Your task to perform on an android device: View the shopping cart on ebay. Add "macbook" to the cart on ebay Image 0: 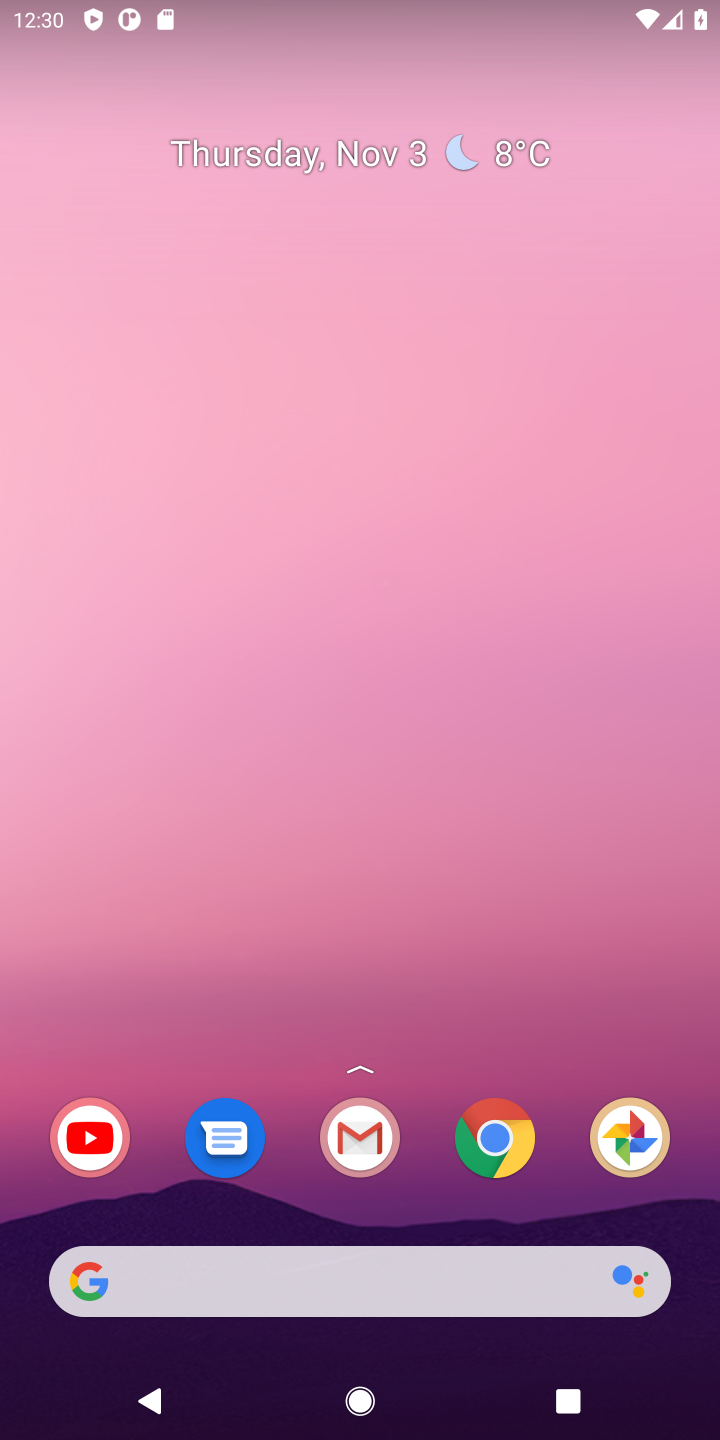
Step 0: click (504, 1153)
Your task to perform on an android device: View the shopping cart on ebay. Add "macbook" to the cart on ebay Image 1: 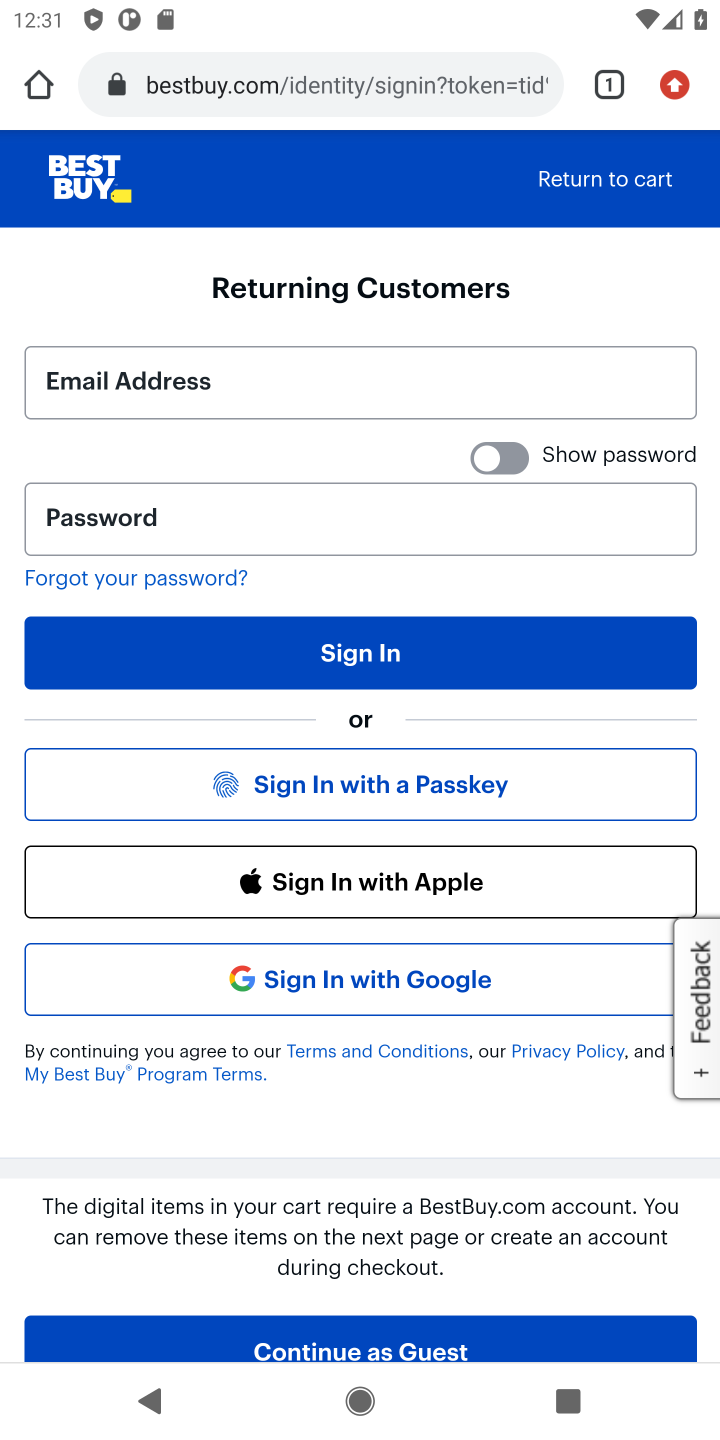
Step 1: click (206, 82)
Your task to perform on an android device: View the shopping cart on ebay. Add "macbook" to the cart on ebay Image 2: 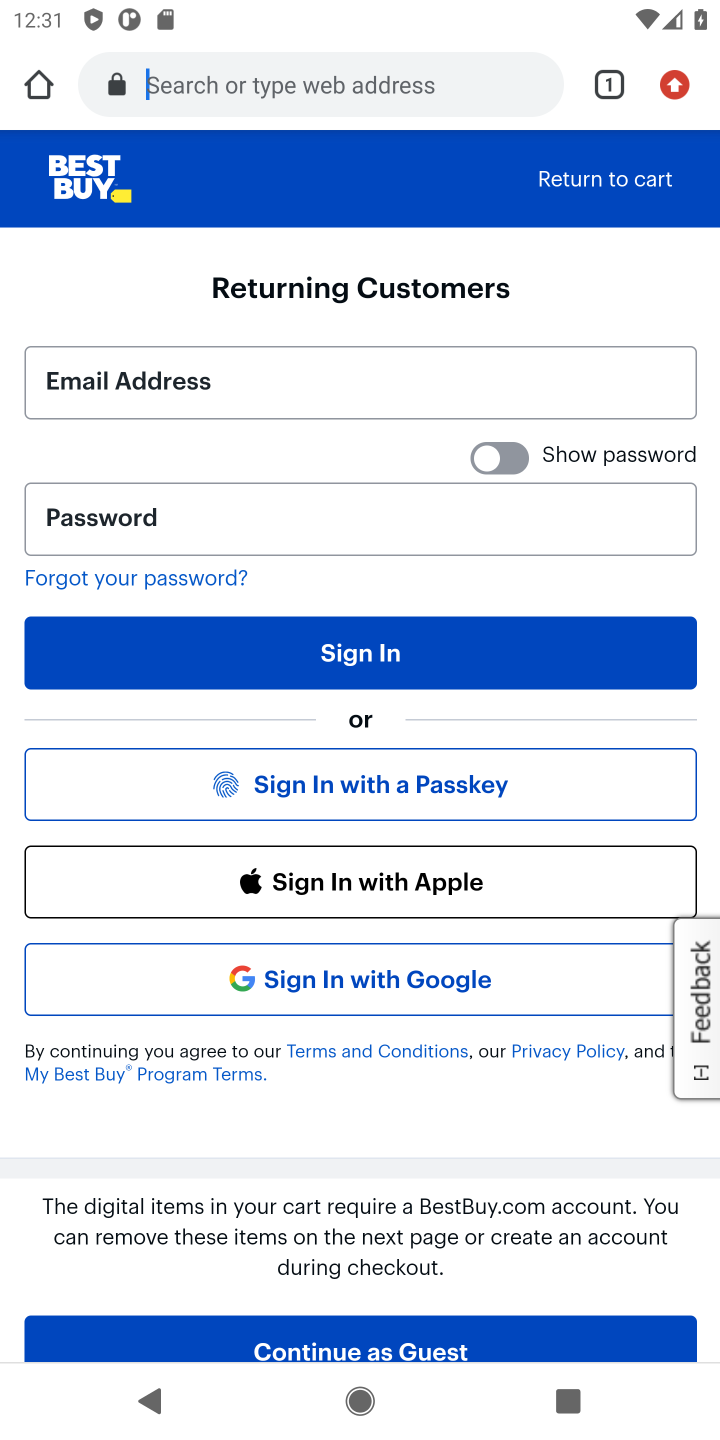
Step 2: click (206, 82)
Your task to perform on an android device: View the shopping cart on ebay. Add "macbook" to the cart on ebay Image 3: 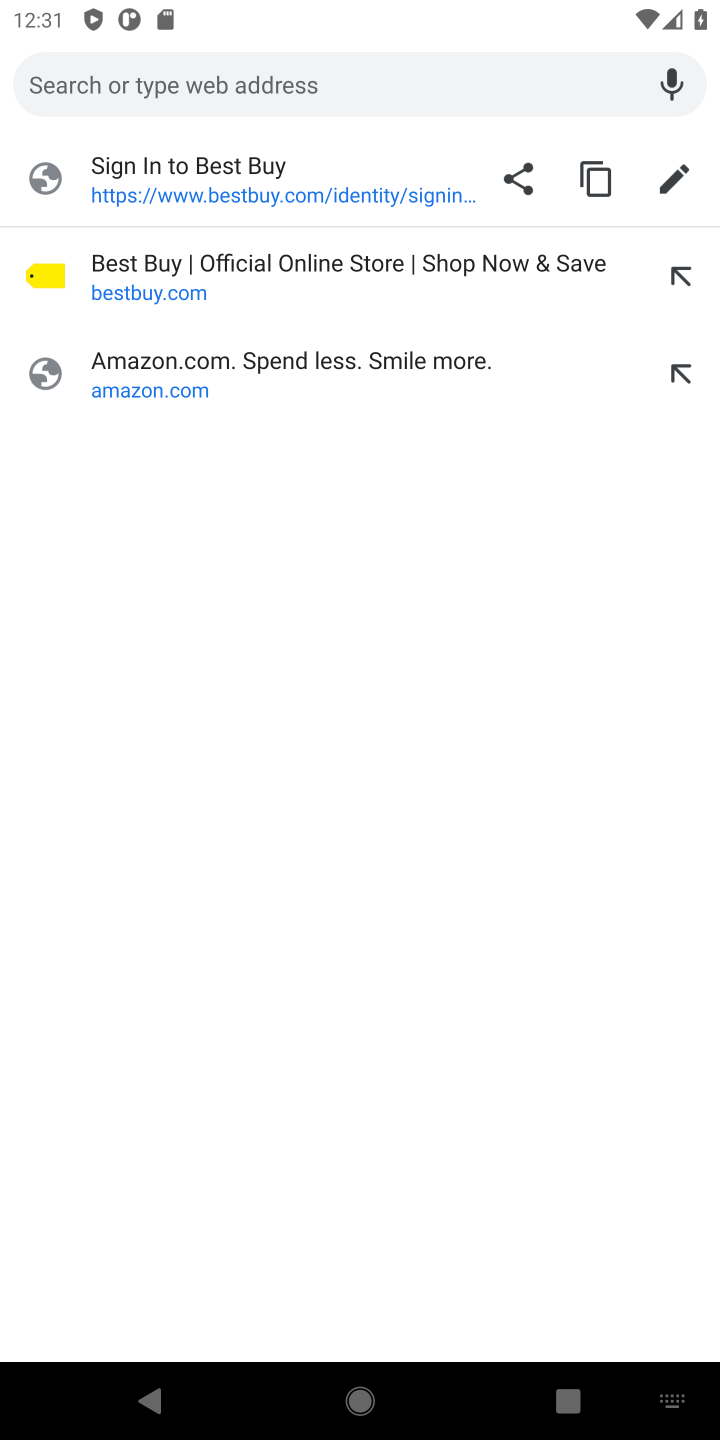
Step 3: type "ebay"
Your task to perform on an android device: View the shopping cart on ebay. Add "macbook" to the cart on ebay Image 4: 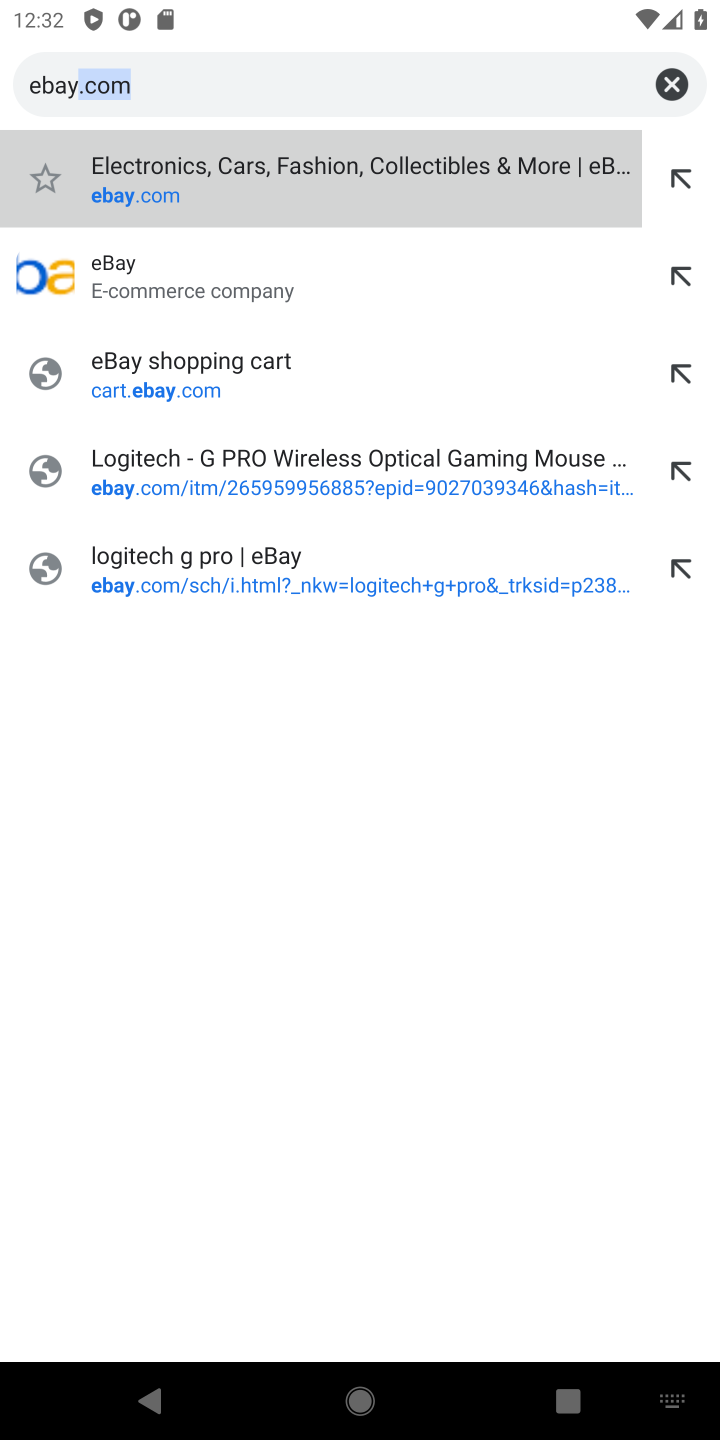
Step 4: click (206, 274)
Your task to perform on an android device: View the shopping cart on ebay. Add "macbook" to the cart on ebay Image 5: 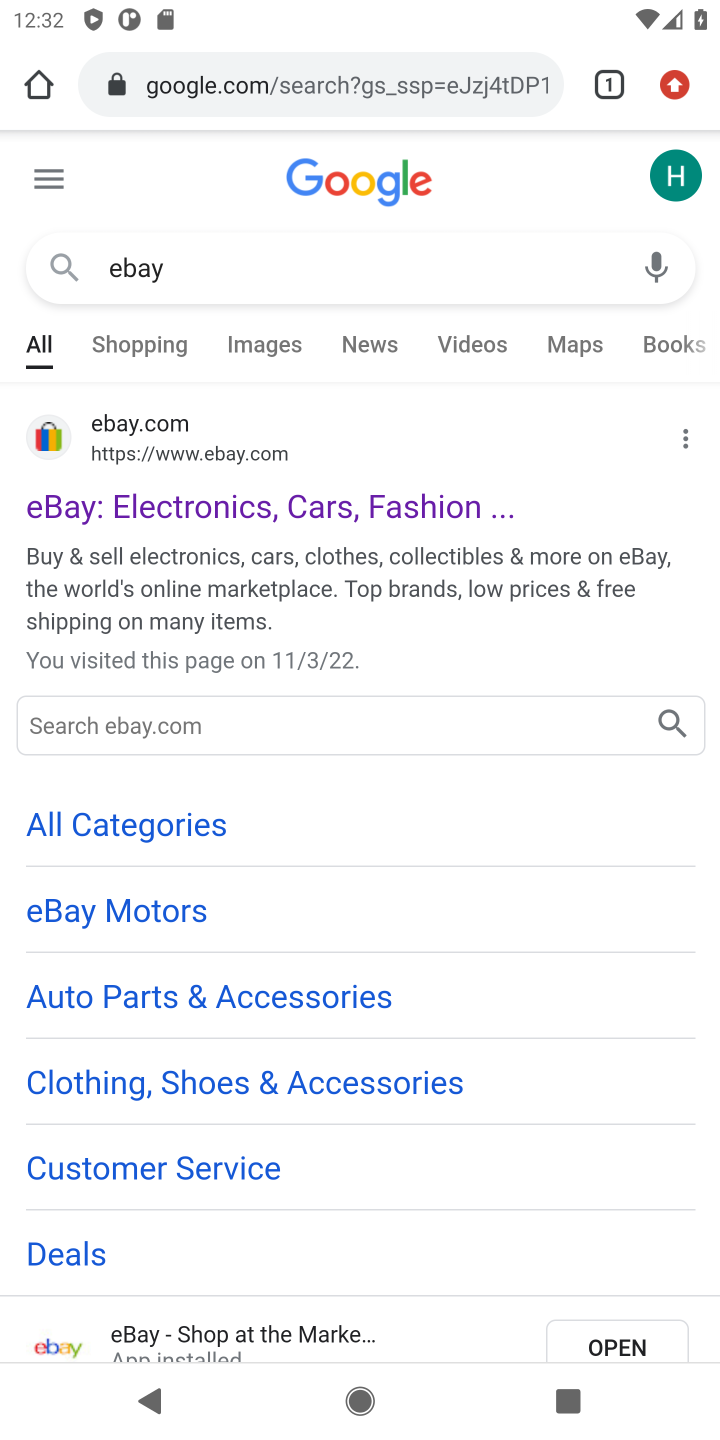
Step 5: click (31, 534)
Your task to perform on an android device: View the shopping cart on ebay. Add "macbook" to the cart on ebay Image 6: 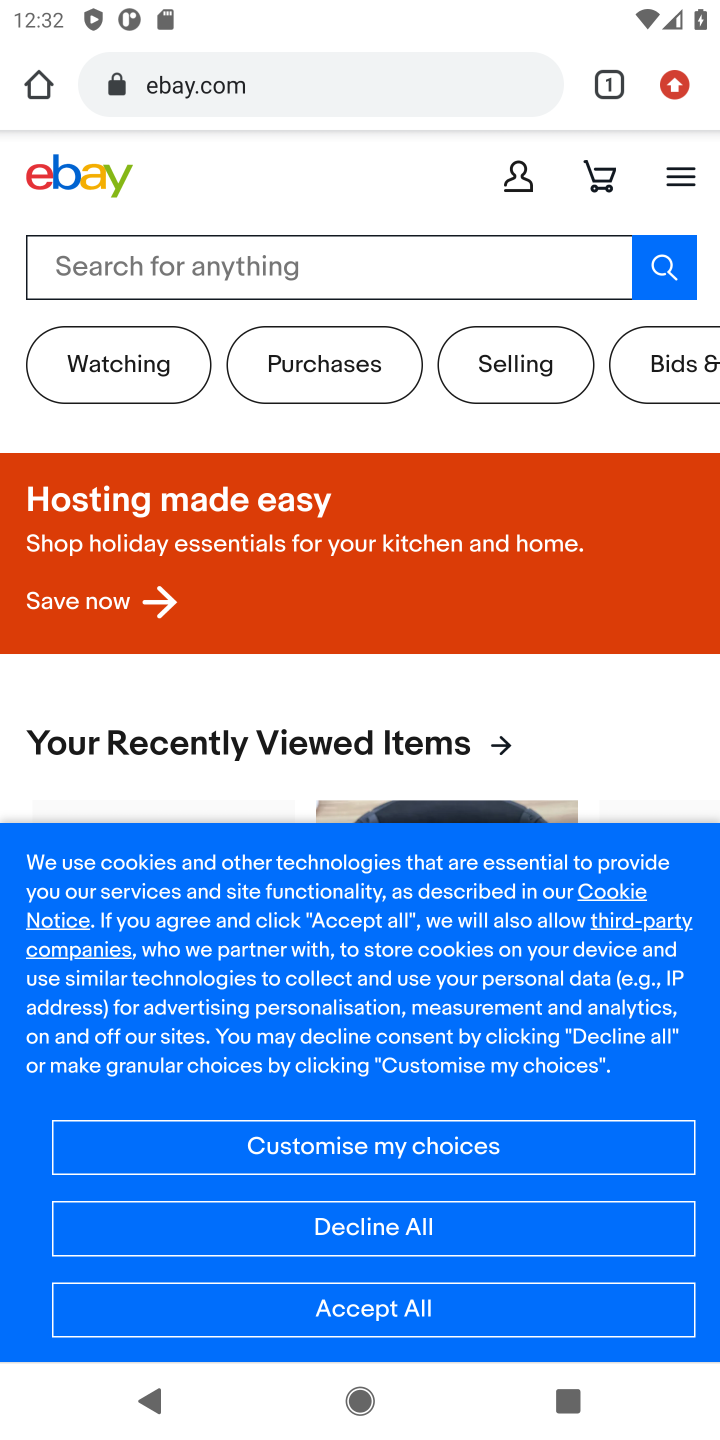
Step 6: click (599, 163)
Your task to perform on an android device: View the shopping cart on ebay. Add "macbook" to the cart on ebay Image 7: 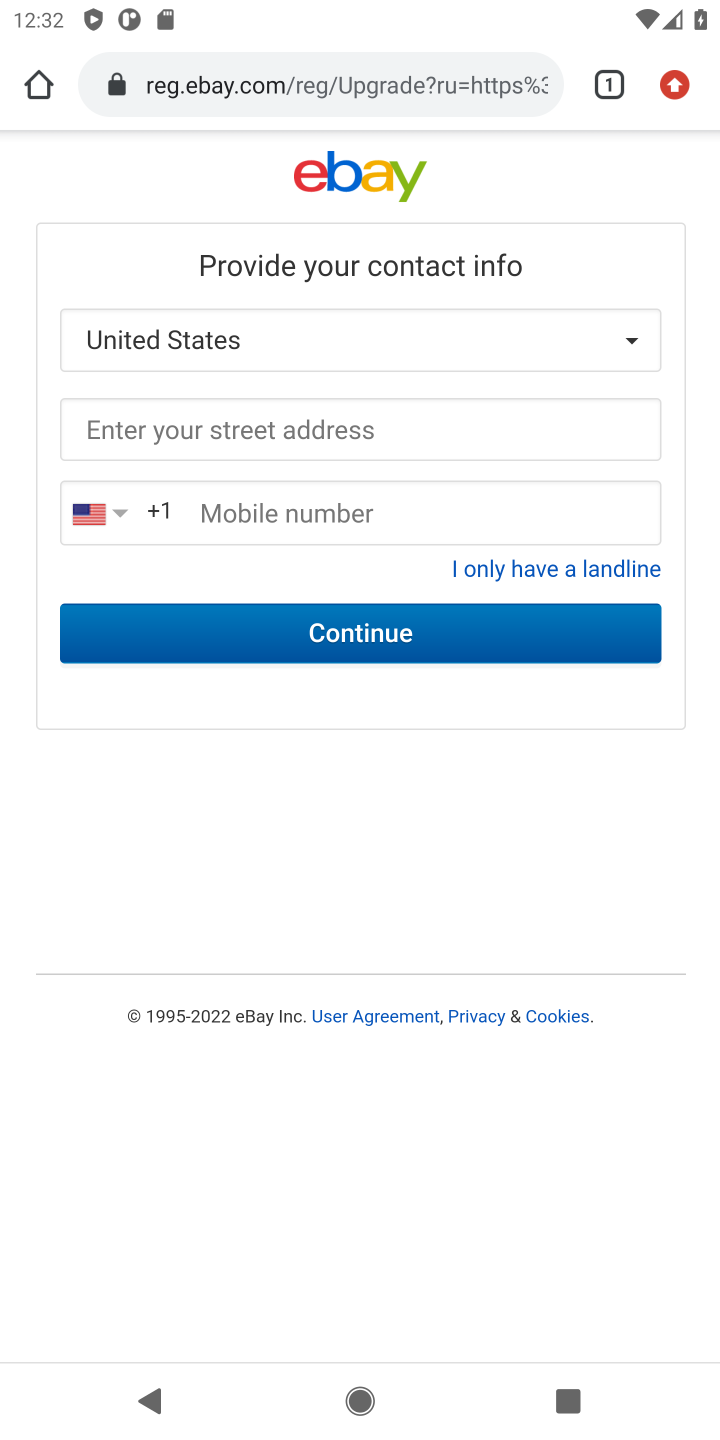
Step 7: press back button
Your task to perform on an android device: View the shopping cart on ebay. Add "macbook" to the cart on ebay Image 8: 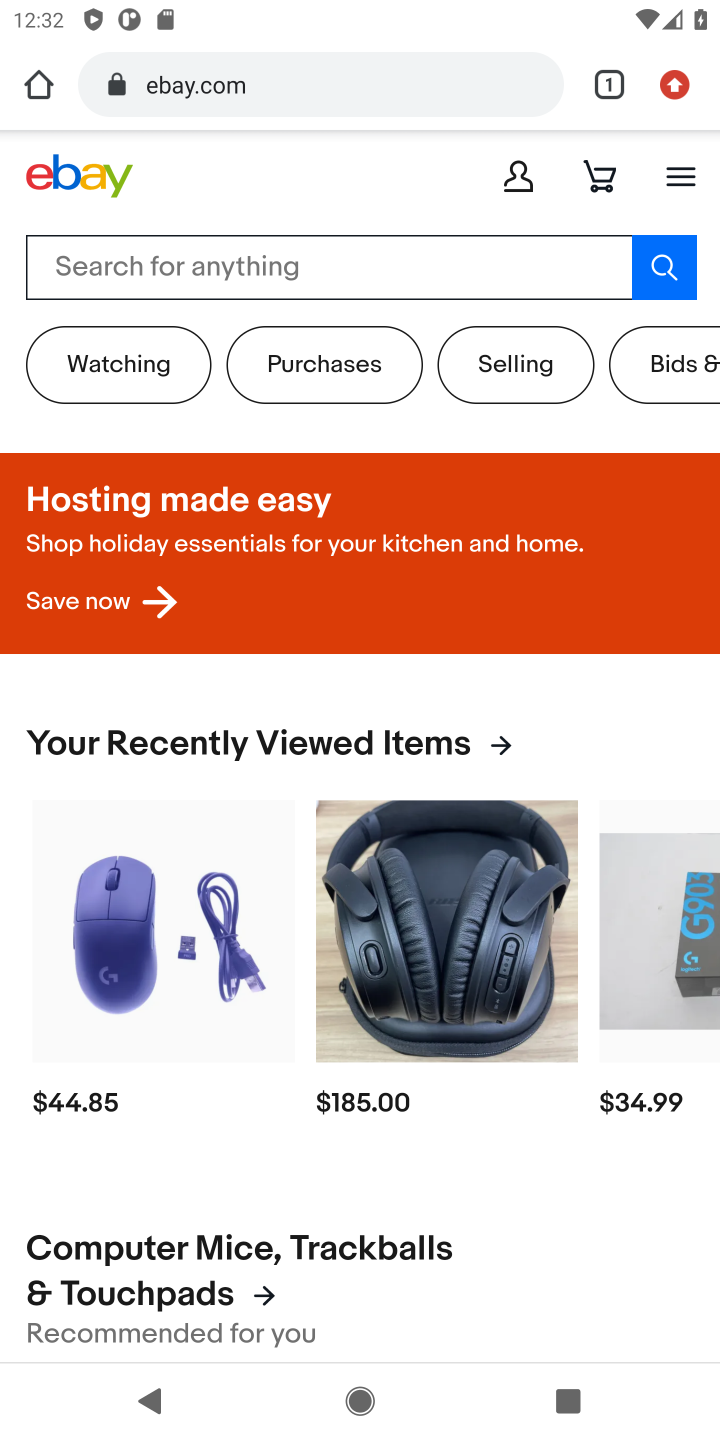
Step 8: click (390, 291)
Your task to perform on an android device: View the shopping cart on ebay. Add "macbook" to the cart on ebay Image 9: 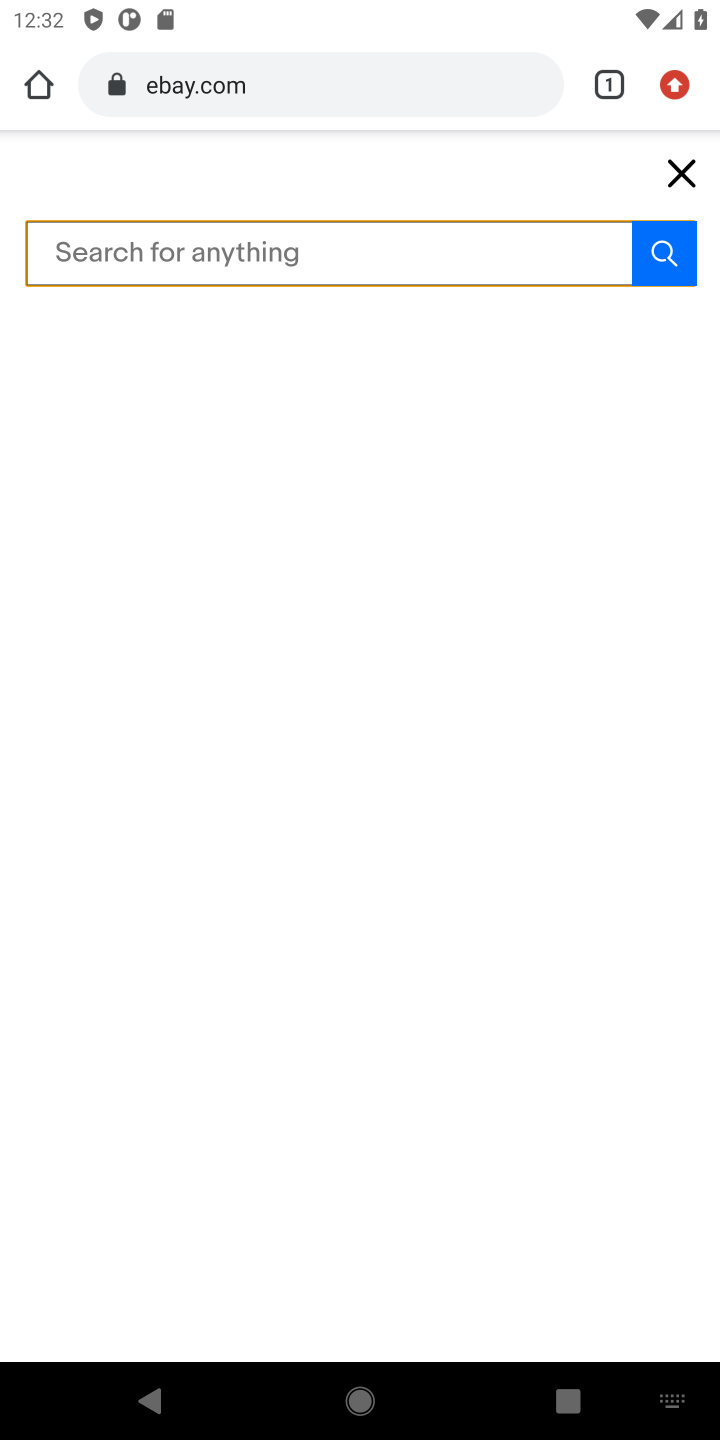
Step 9: type "macbook"
Your task to perform on an android device: View the shopping cart on ebay. Add "macbook" to the cart on ebay Image 10: 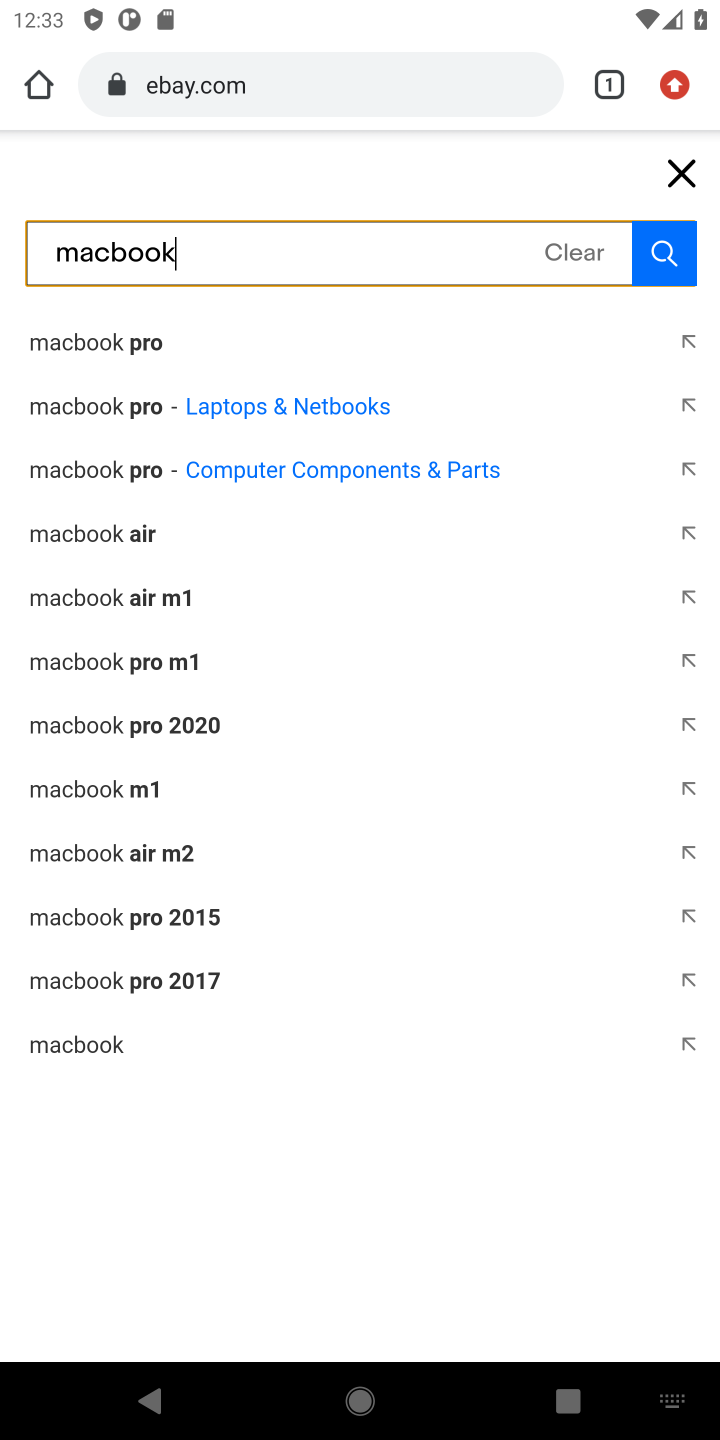
Step 10: click (661, 242)
Your task to perform on an android device: View the shopping cart on ebay. Add "macbook" to the cart on ebay Image 11: 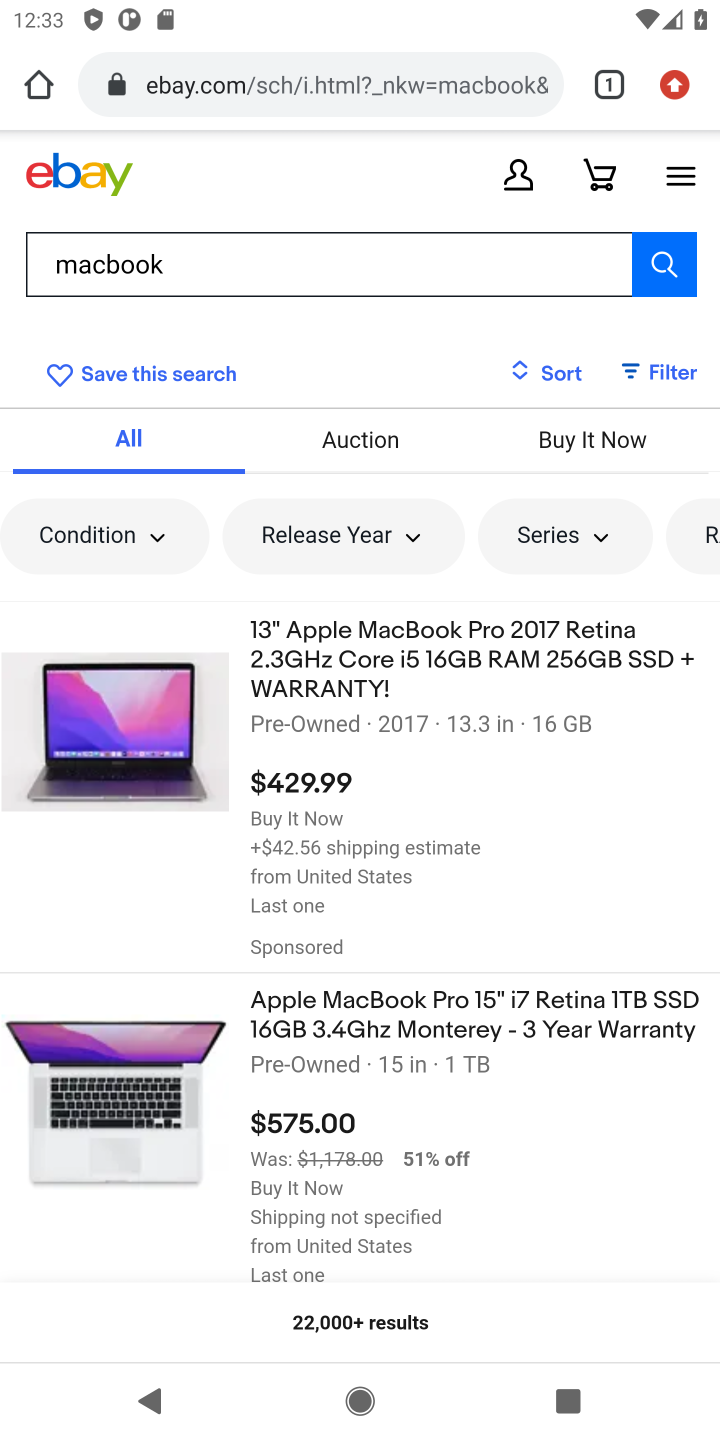
Step 11: click (408, 664)
Your task to perform on an android device: View the shopping cart on ebay. Add "macbook" to the cart on ebay Image 12: 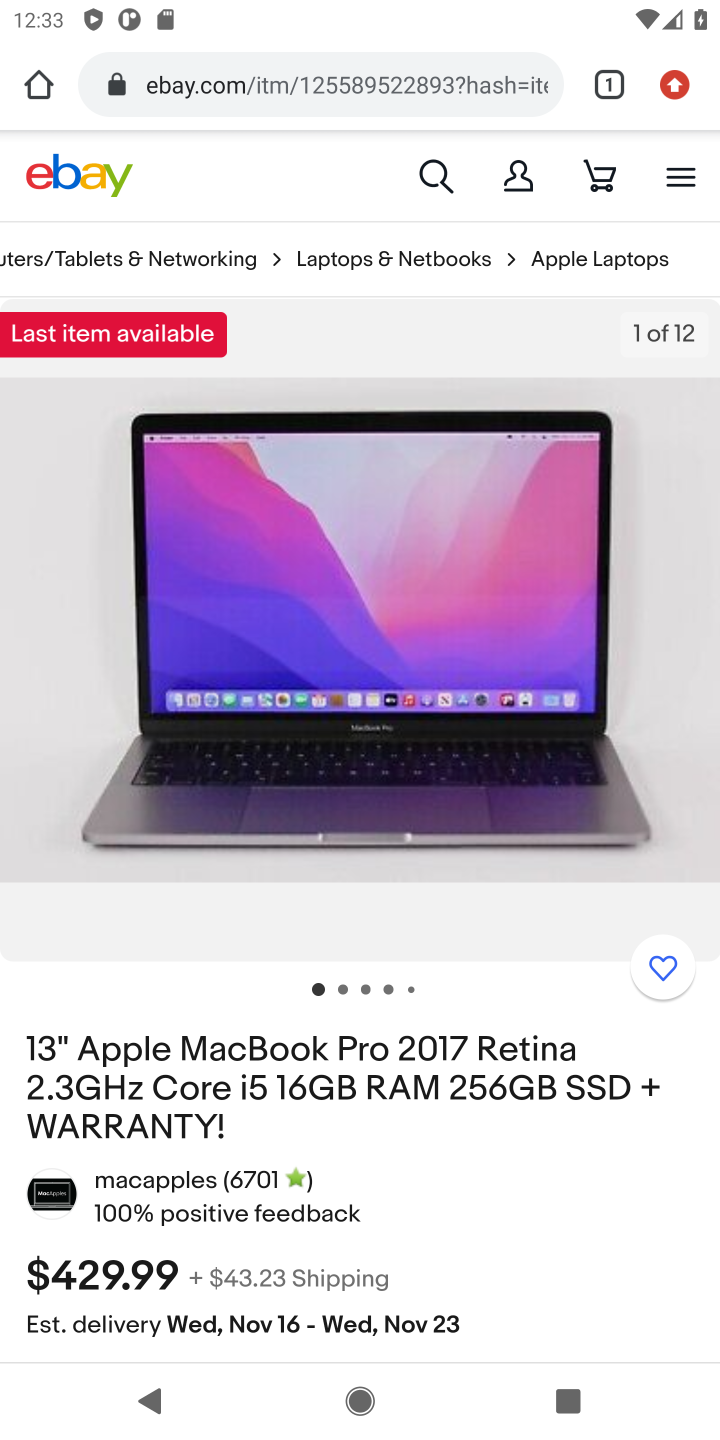
Step 12: drag from (407, 1217) to (438, 314)
Your task to perform on an android device: View the shopping cart on ebay. Add "macbook" to the cart on ebay Image 13: 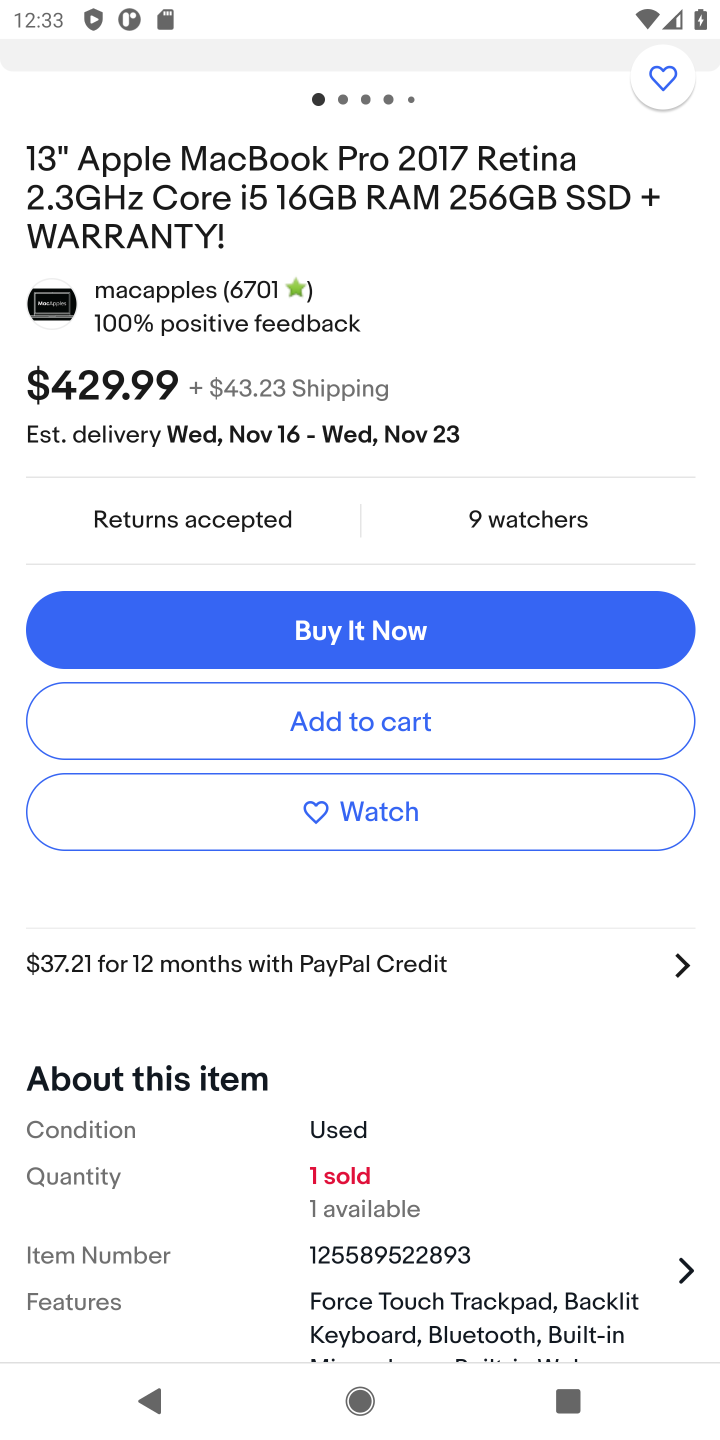
Step 13: click (395, 732)
Your task to perform on an android device: View the shopping cart on ebay. Add "macbook" to the cart on ebay Image 14: 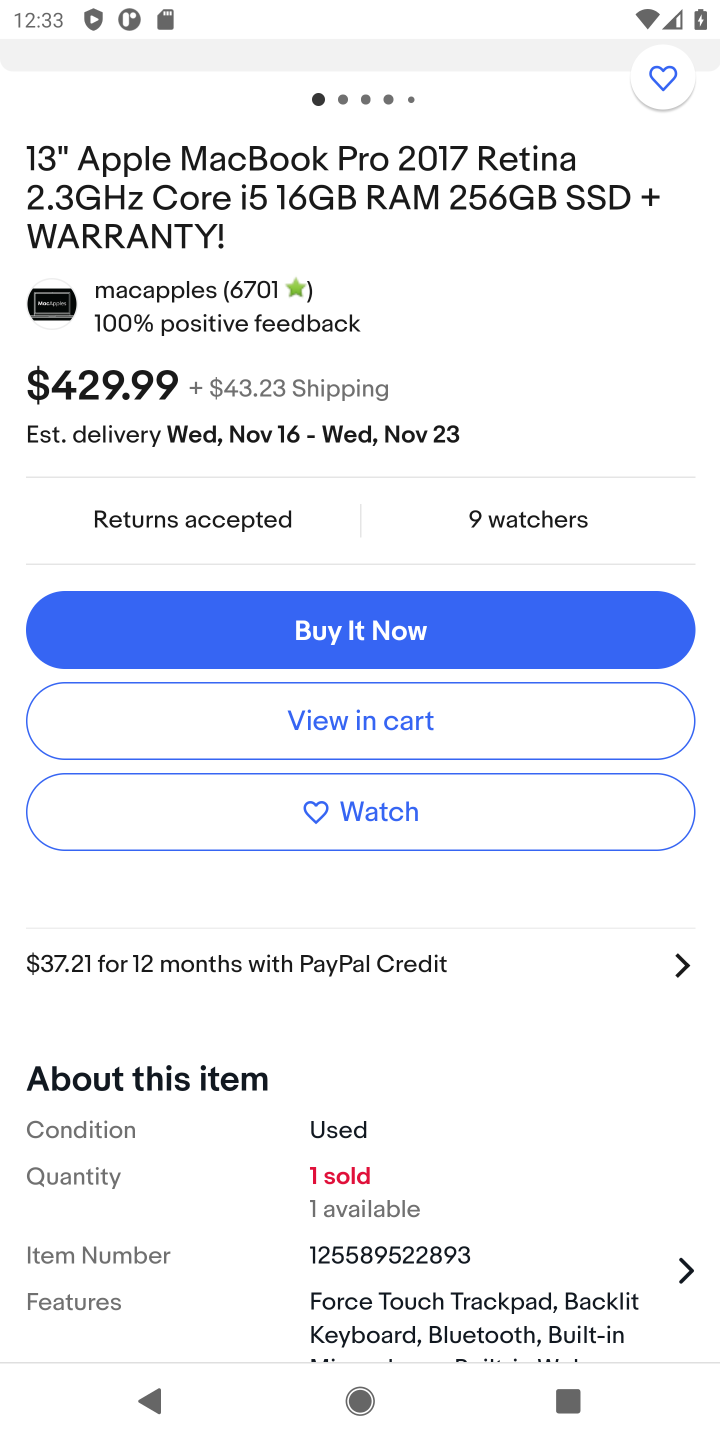
Step 14: task complete